Your task to perform on an android device: toggle notifications settings in the gmail app Image 0: 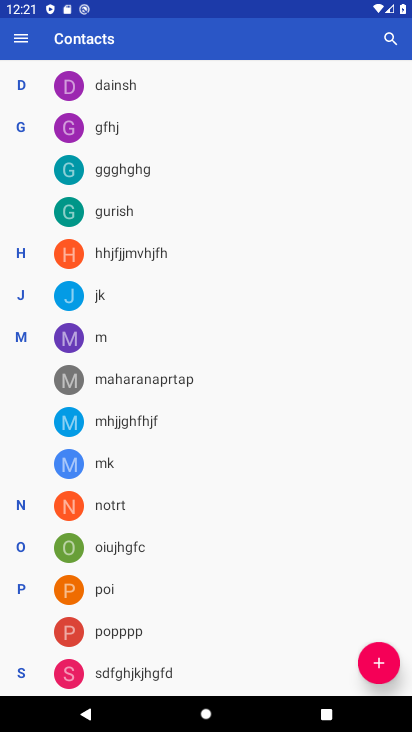
Step 0: press home button
Your task to perform on an android device: toggle notifications settings in the gmail app Image 1: 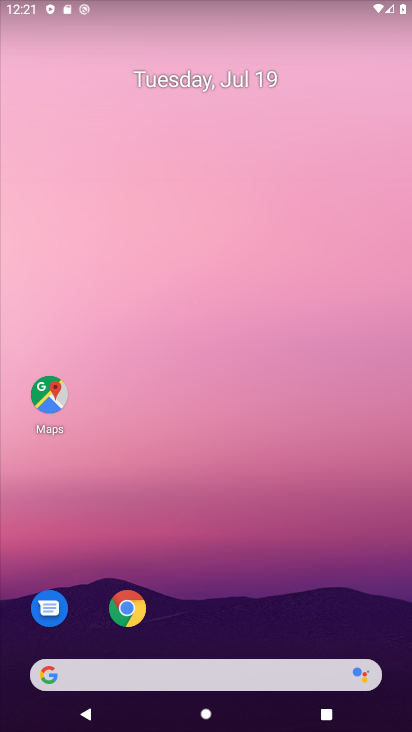
Step 1: drag from (277, 470) to (282, 132)
Your task to perform on an android device: toggle notifications settings in the gmail app Image 2: 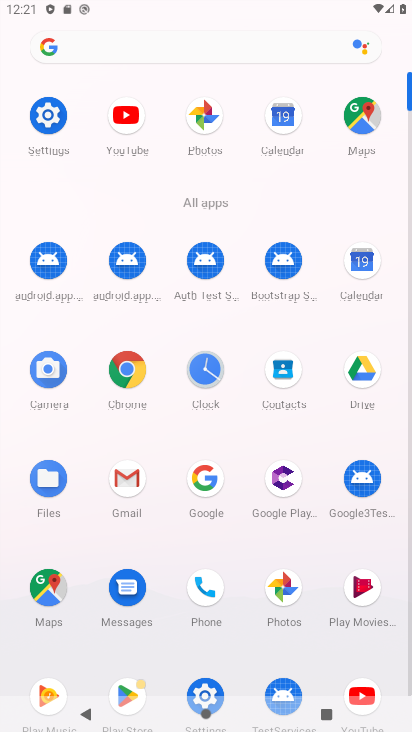
Step 2: click (120, 481)
Your task to perform on an android device: toggle notifications settings in the gmail app Image 3: 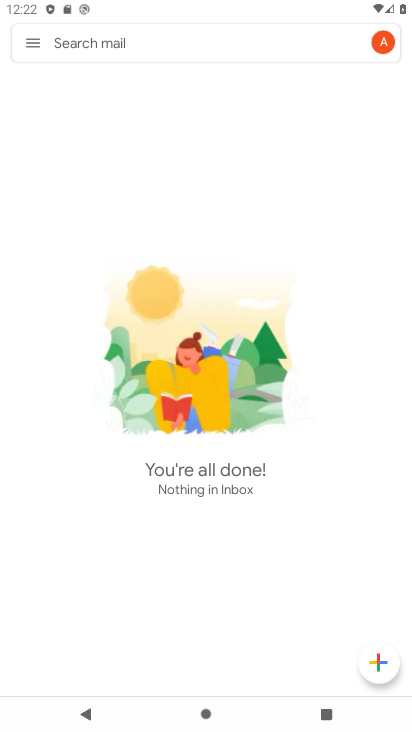
Step 3: click (30, 40)
Your task to perform on an android device: toggle notifications settings in the gmail app Image 4: 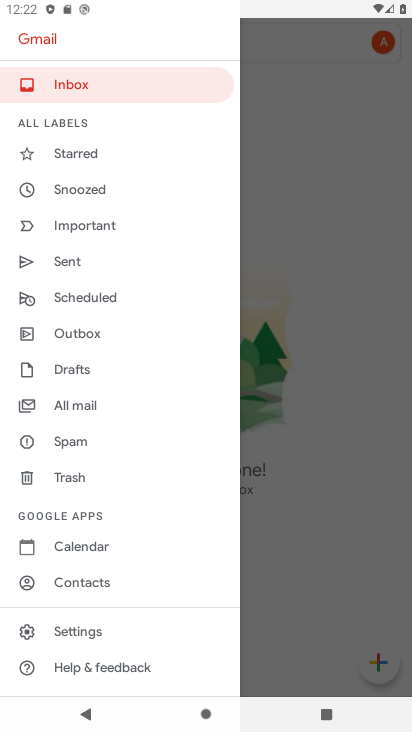
Step 4: click (70, 628)
Your task to perform on an android device: toggle notifications settings in the gmail app Image 5: 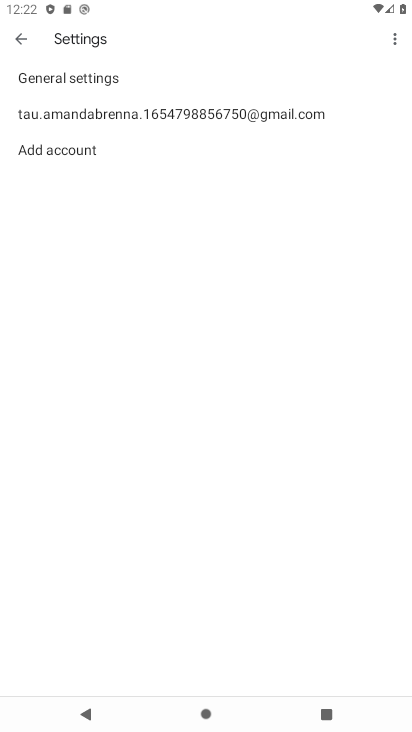
Step 5: click (75, 74)
Your task to perform on an android device: toggle notifications settings in the gmail app Image 6: 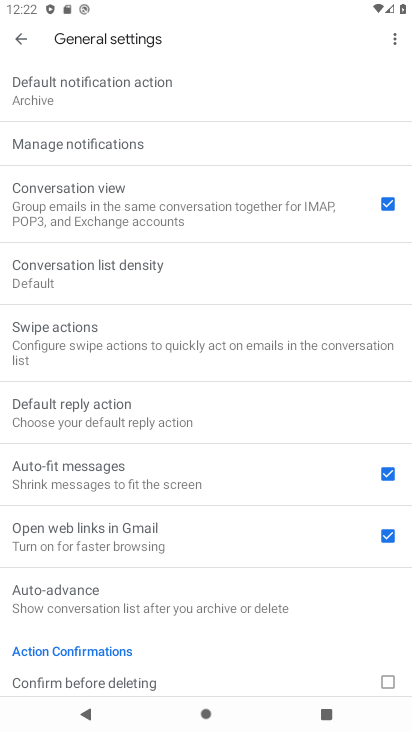
Step 6: task complete